Your task to perform on an android device: move an email to a new category in the gmail app Image 0: 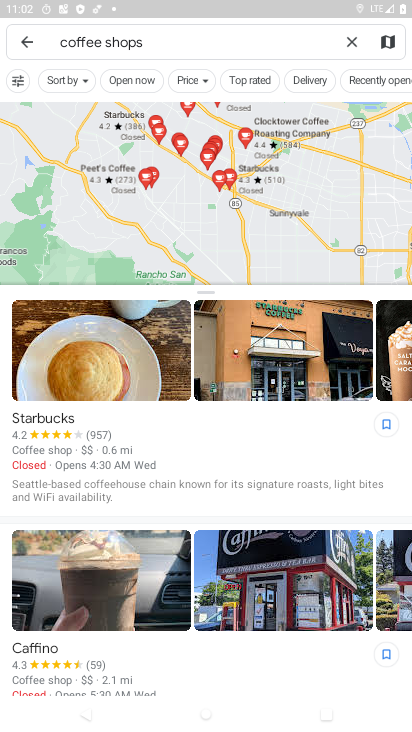
Step 0: press home button
Your task to perform on an android device: move an email to a new category in the gmail app Image 1: 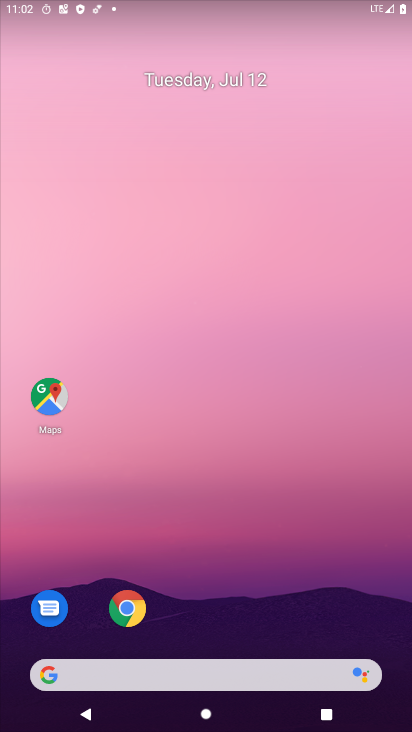
Step 1: drag from (242, 568) to (297, 48)
Your task to perform on an android device: move an email to a new category in the gmail app Image 2: 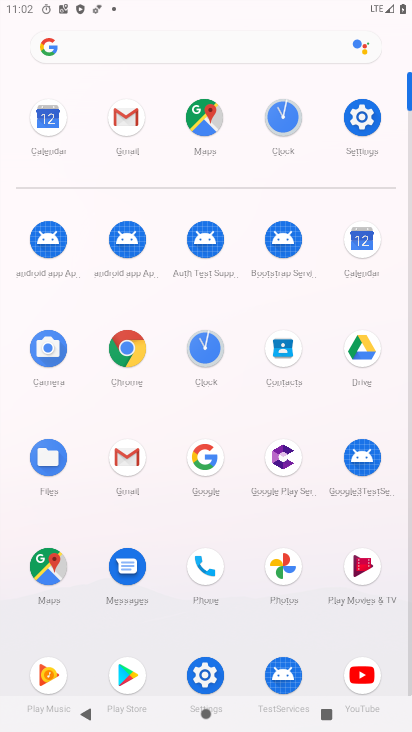
Step 2: click (126, 124)
Your task to perform on an android device: move an email to a new category in the gmail app Image 3: 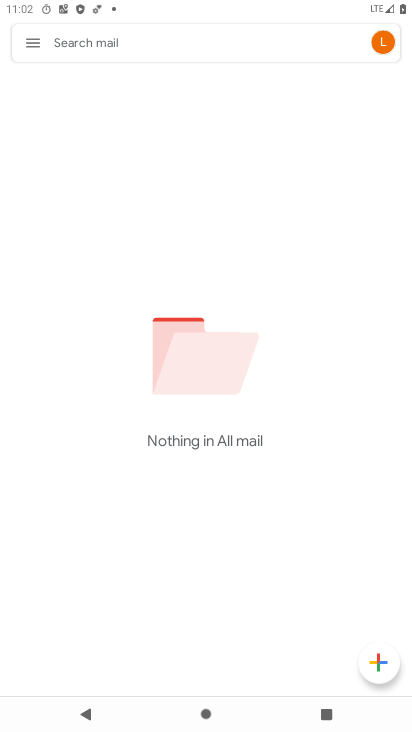
Step 3: click (25, 46)
Your task to perform on an android device: move an email to a new category in the gmail app Image 4: 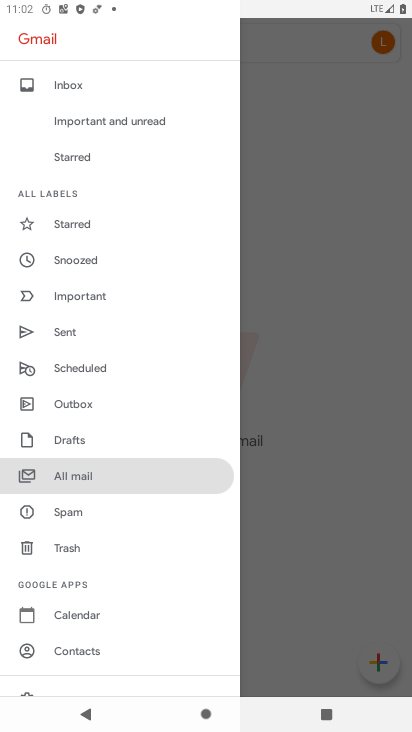
Step 4: click (87, 475)
Your task to perform on an android device: move an email to a new category in the gmail app Image 5: 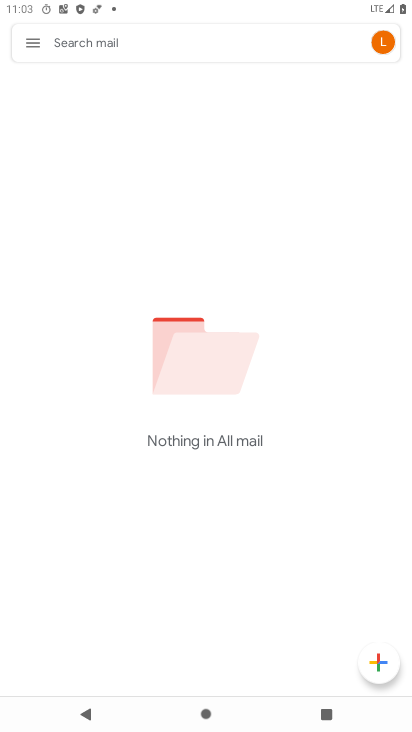
Step 5: task complete